Your task to perform on an android device: Set the phone to "Do not disturb". Image 0: 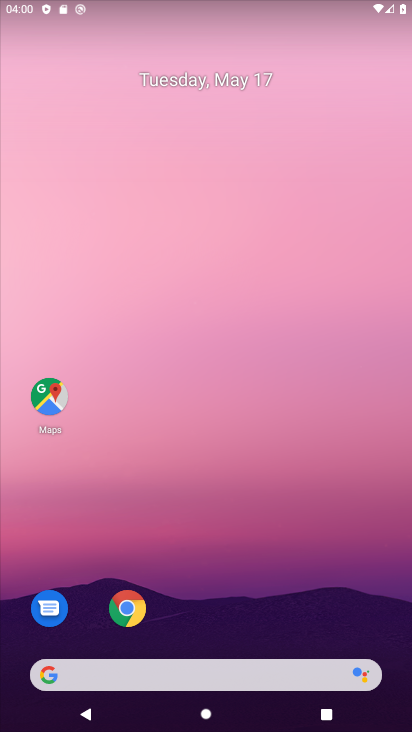
Step 0: click (264, 324)
Your task to perform on an android device: Set the phone to "Do not disturb". Image 1: 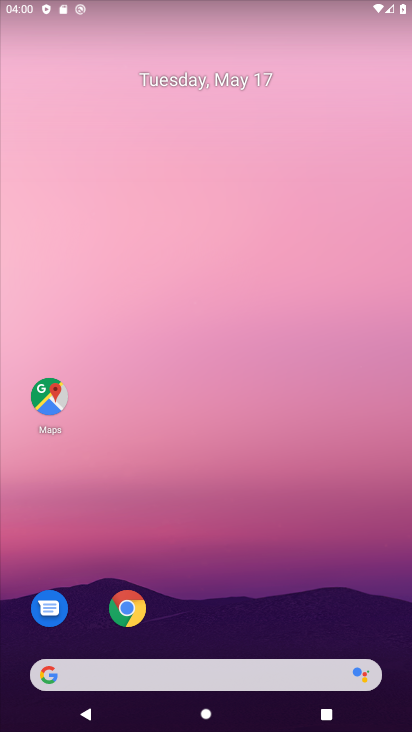
Step 1: drag from (213, 625) to (252, 254)
Your task to perform on an android device: Set the phone to "Do not disturb". Image 2: 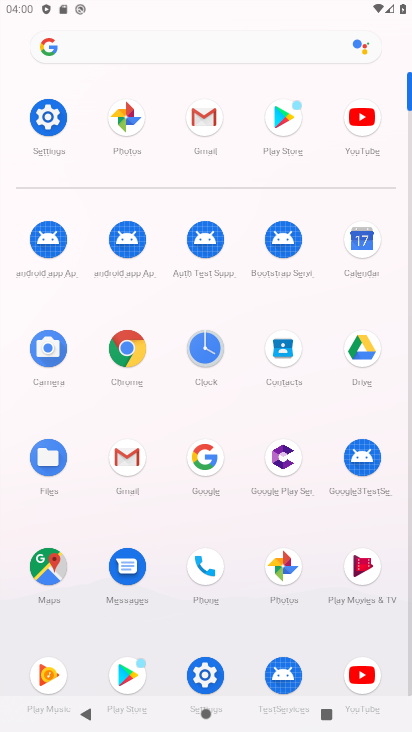
Step 2: click (54, 120)
Your task to perform on an android device: Set the phone to "Do not disturb". Image 3: 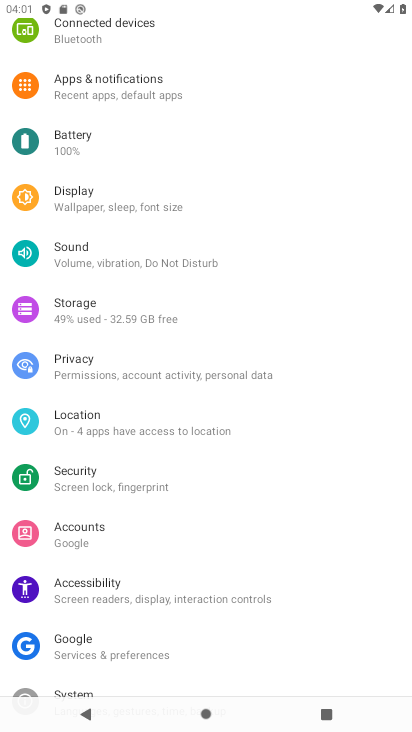
Step 3: click (152, 268)
Your task to perform on an android device: Set the phone to "Do not disturb". Image 4: 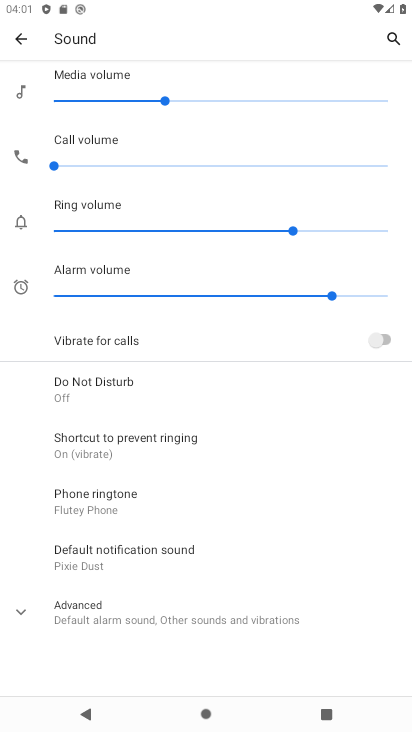
Step 4: click (77, 612)
Your task to perform on an android device: Set the phone to "Do not disturb". Image 5: 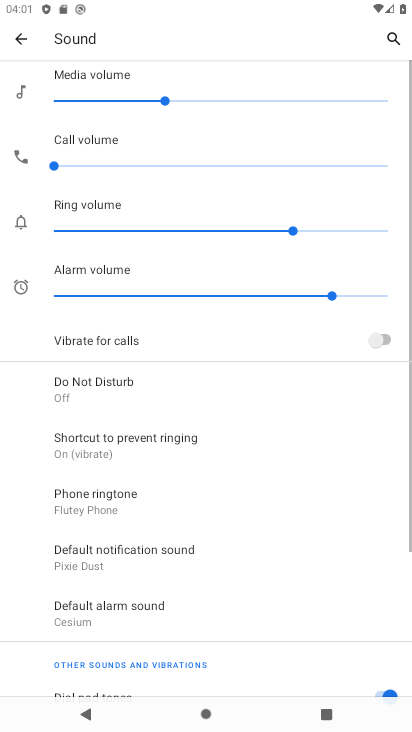
Step 5: click (94, 387)
Your task to perform on an android device: Set the phone to "Do not disturb". Image 6: 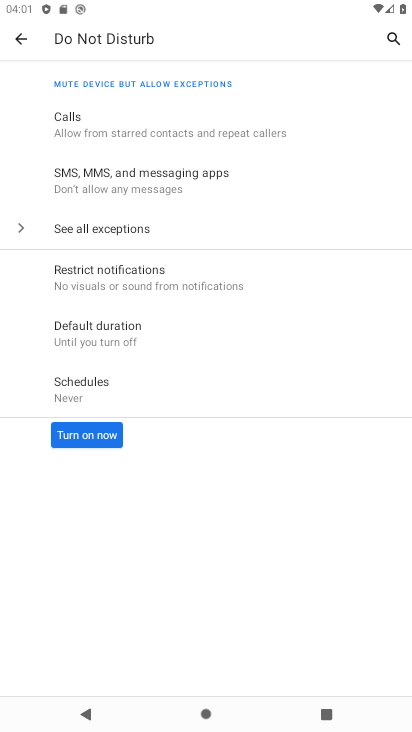
Step 6: click (73, 436)
Your task to perform on an android device: Set the phone to "Do not disturb". Image 7: 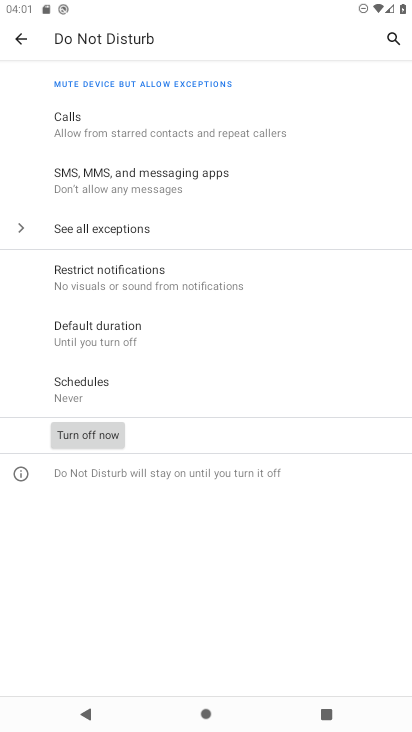
Step 7: task complete